Your task to perform on an android device: Open the calendar app, open the side menu, and click the "Day" option Image 0: 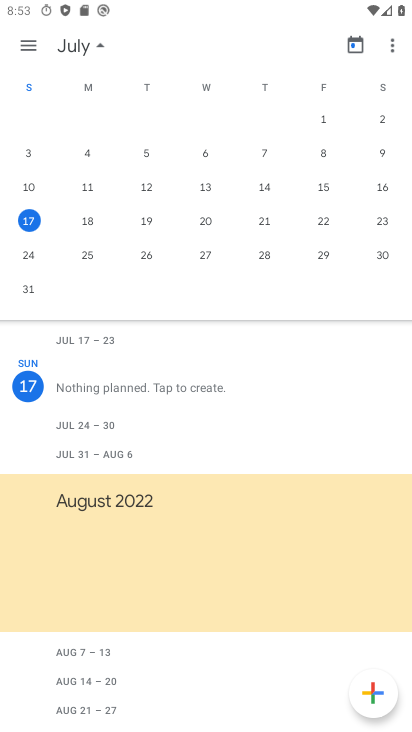
Step 0: click (36, 44)
Your task to perform on an android device: Open the calendar app, open the side menu, and click the "Day" option Image 1: 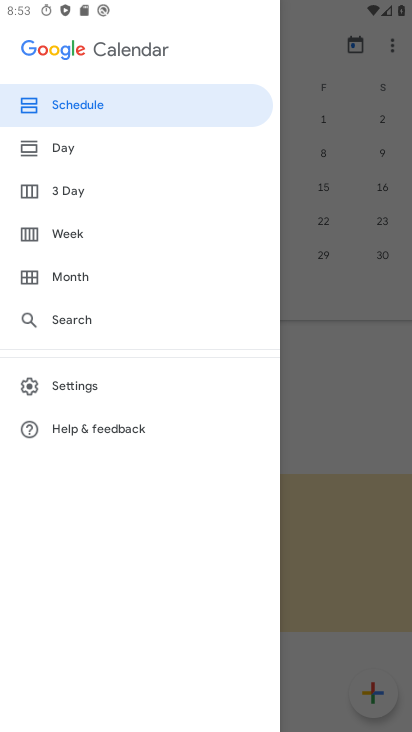
Step 1: click (79, 156)
Your task to perform on an android device: Open the calendar app, open the side menu, and click the "Day" option Image 2: 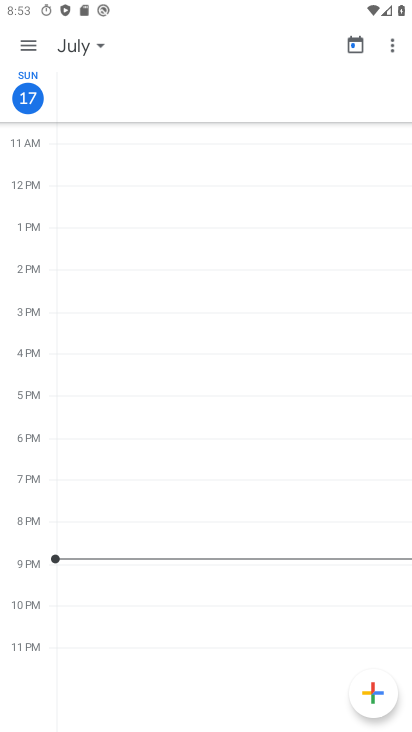
Step 2: task complete